Your task to perform on an android device: Go to Amazon Image 0: 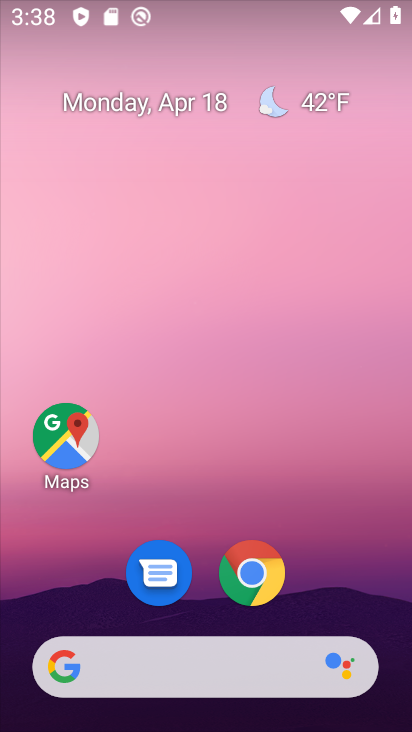
Step 0: click (240, 578)
Your task to perform on an android device: Go to Amazon Image 1: 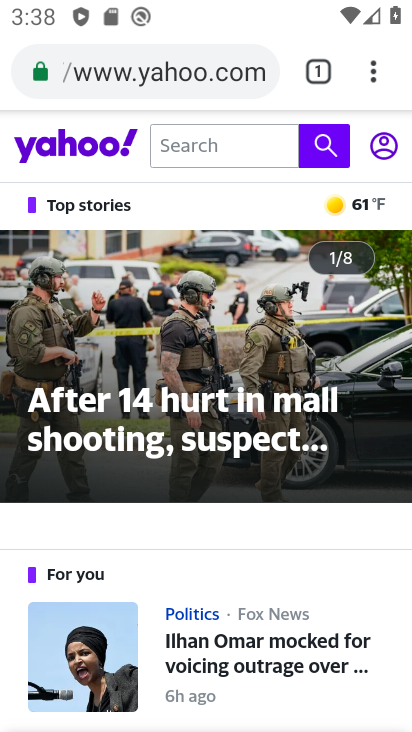
Step 1: click (322, 76)
Your task to perform on an android device: Go to Amazon Image 2: 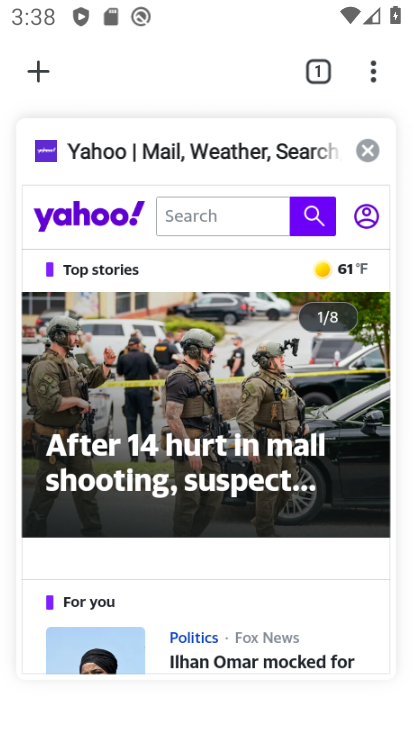
Step 2: click (366, 151)
Your task to perform on an android device: Go to Amazon Image 3: 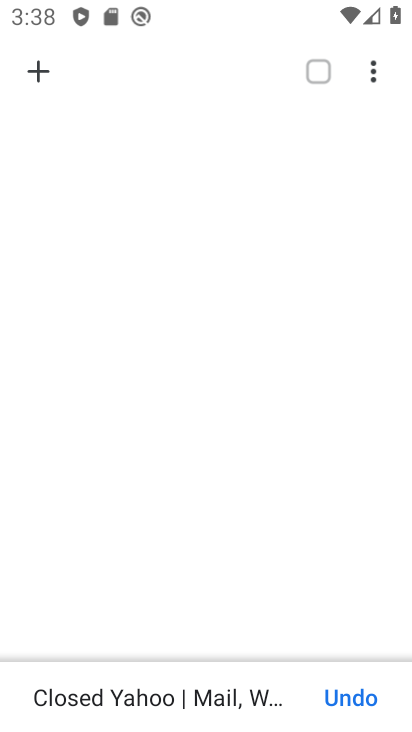
Step 3: click (32, 71)
Your task to perform on an android device: Go to Amazon Image 4: 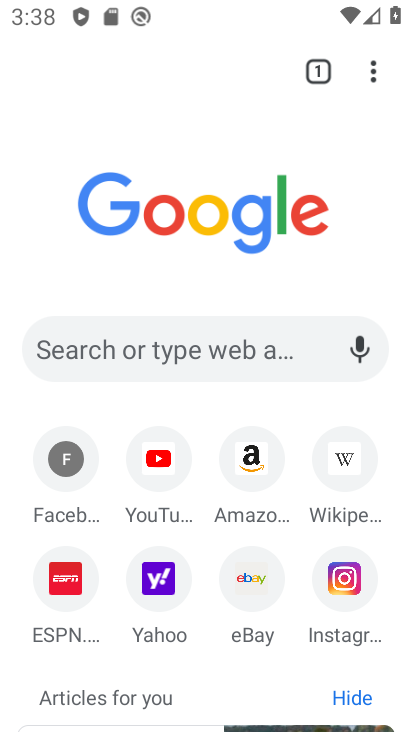
Step 4: click (250, 452)
Your task to perform on an android device: Go to Amazon Image 5: 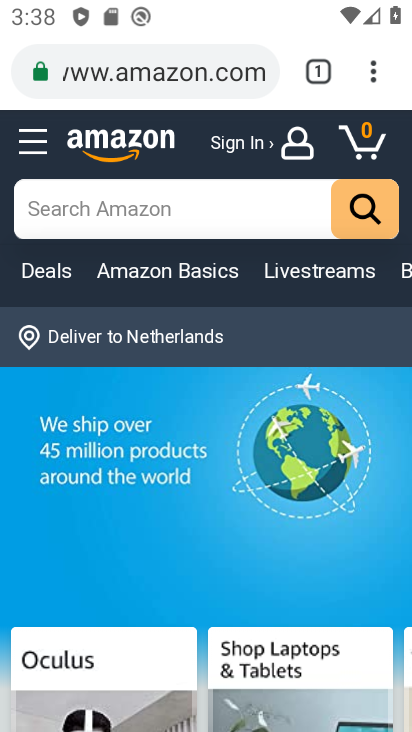
Step 5: task complete